Your task to perform on an android device: open device folders in google photos Image 0: 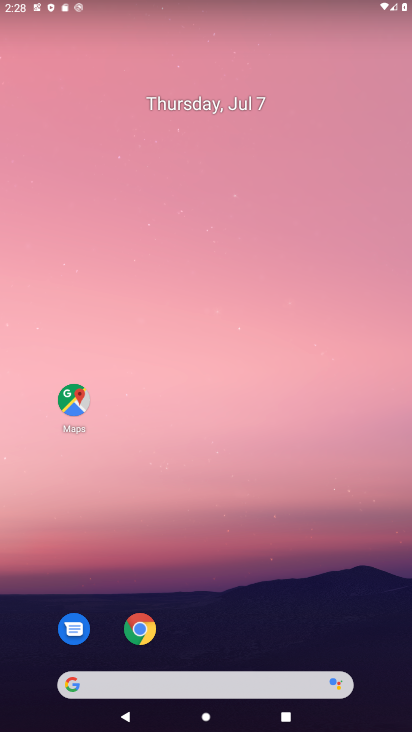
Step 0: drag from (199, 638) to (225, 164)
Your task to perform on an android device: open device folders in google photos Image 1: 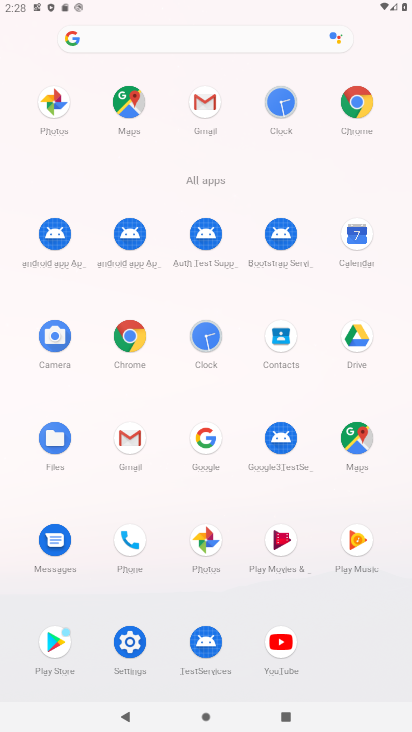
Step 1: drag from (223, 637) to (293, 9)
Your task to perform on an android device: open device folders in google photos Image 2: 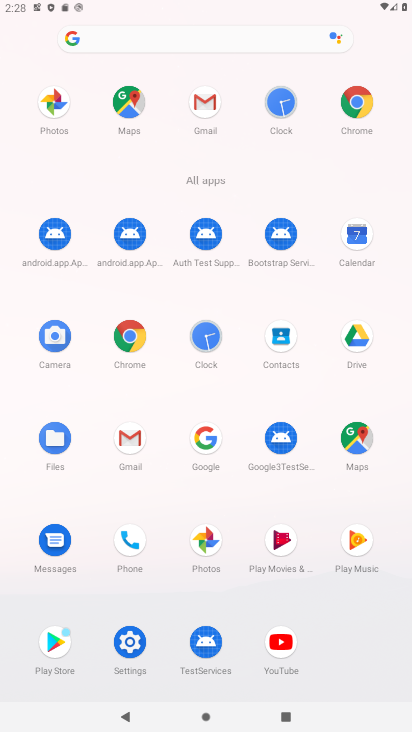
Step 2: click (208, 547)
Your task to perform on an android device: open device folders in google photos Image 3: 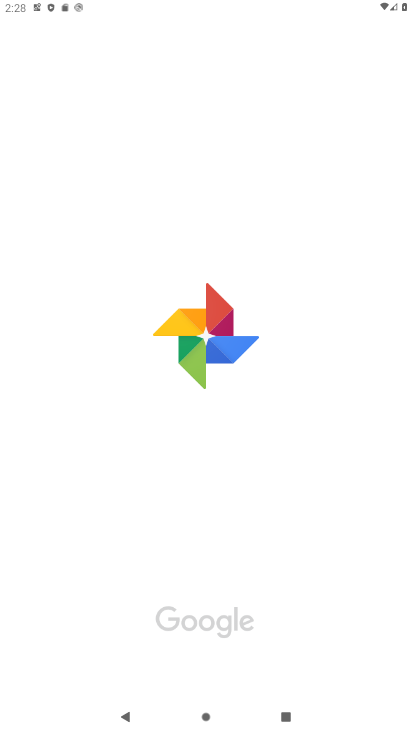
Step 3: click (208, 547)
Your task to perform on an android device: open device folders in google photos Image 4: 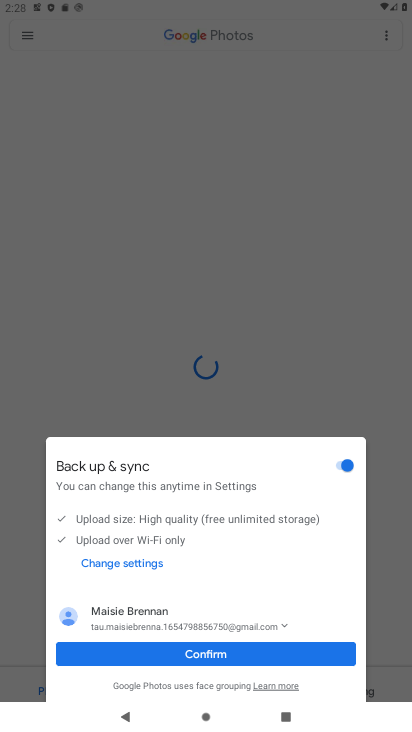
Step 4: click (130, 657)
Your task to perform on an android device: open device folders in google photos Image 5: 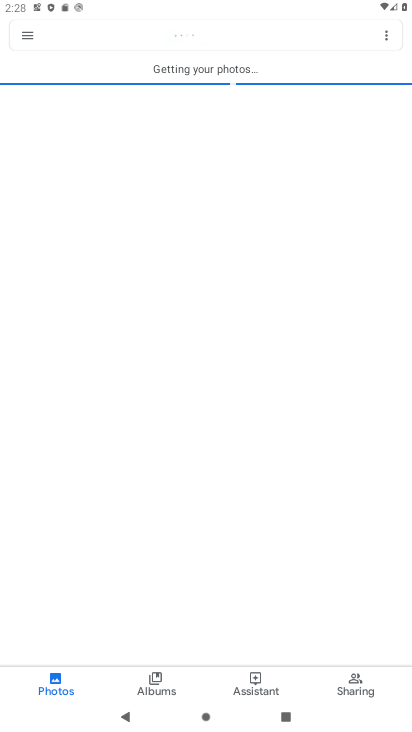
Step 5: click (33, 35)
Your task to perform on an android device: open device folders in google photos Image 6: 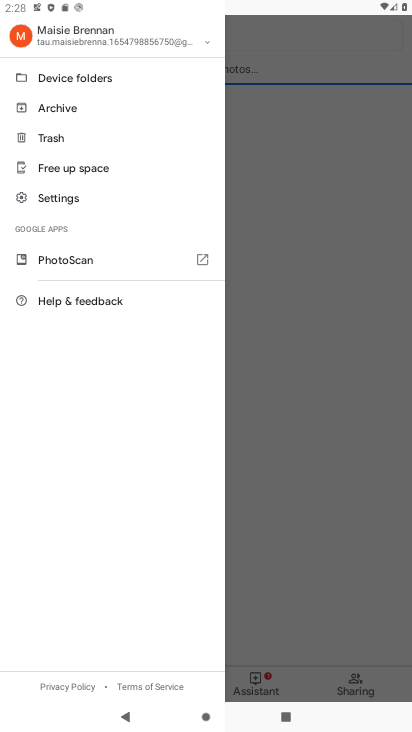
Step 6: click (122, 86)
Your task to perform on an android device: open device folders in google photos Image 7: 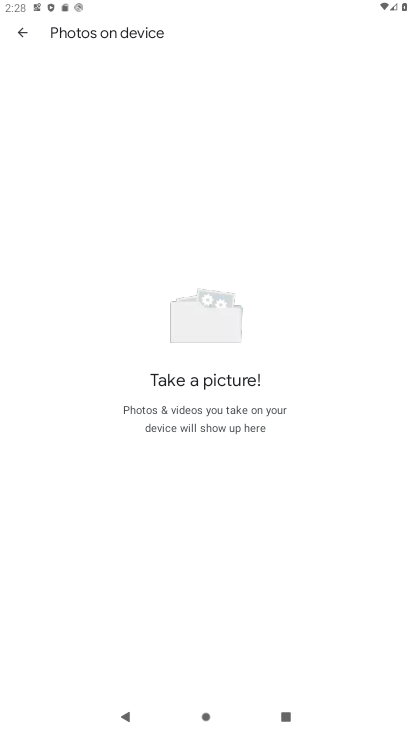
Step 7: task complete